Your task to perform on an android device: open app "DuckDuckGo Privacy Browser" (install if not already installed) Image 0: 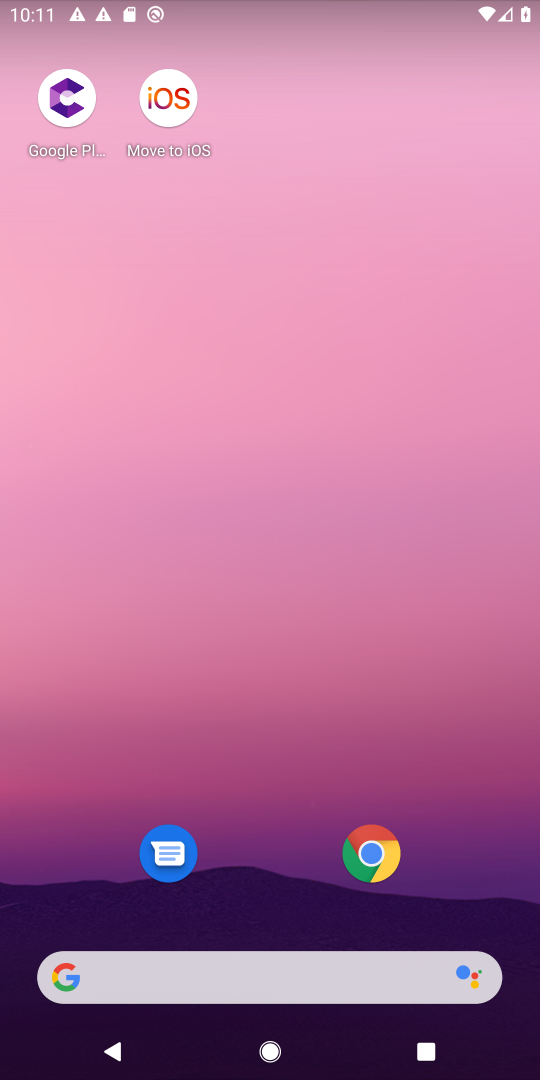
Step 0: drag from (314, 899) to (308, 288)
Your task to perform on an android device: open app "DuckDuckGo Privacy Browser" (install if not already installed) Image 1: 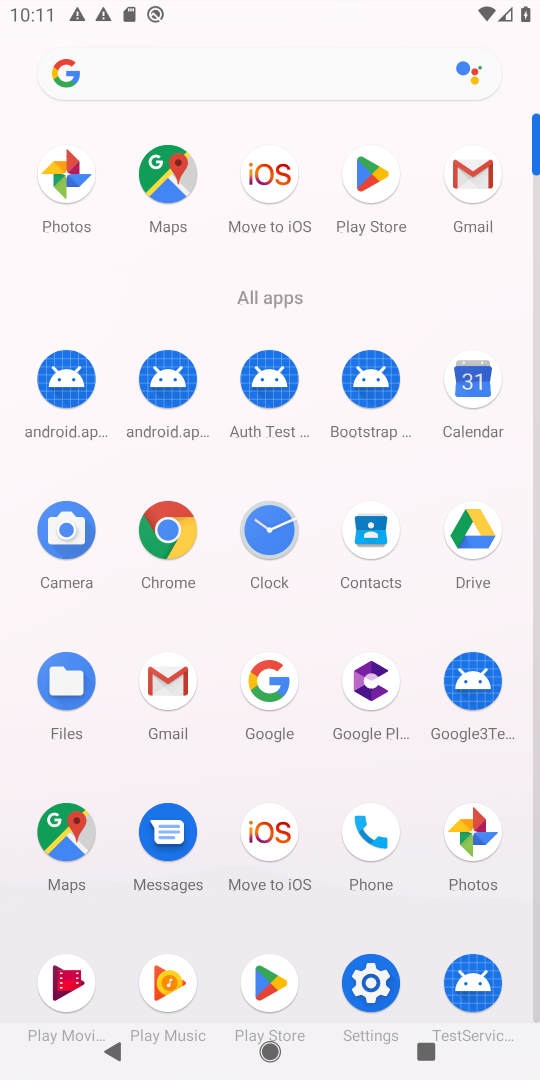
Step 1: click (374, 170)
Your task to perform on an android device: open app "DuckDuckGo Privacy Browser" (install if not already installed) Image 2: 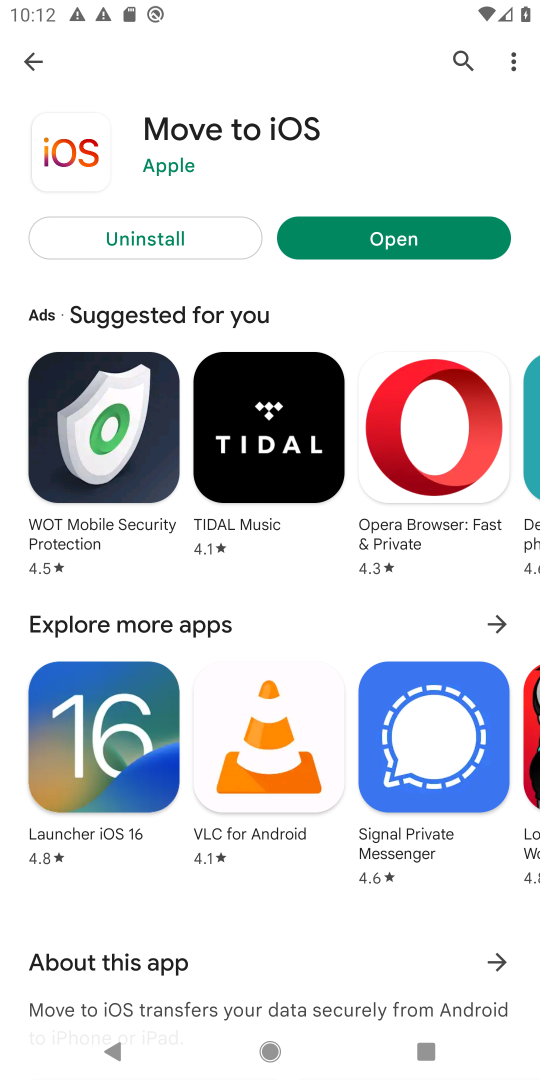
Step 2: click (460, 58)
Your task to perform on an android device: open app "DuckDuckGo Privacy Browser" (install if not already installed) Image 3: 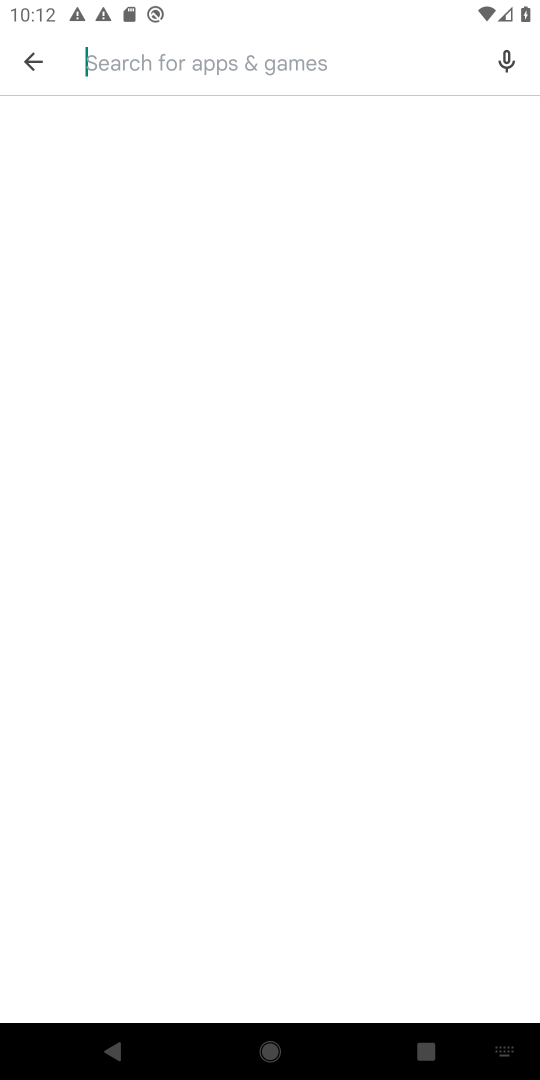
Step 3: type "DuckDuckGo Privacy Browser"
Your task to perform on an android device: open app "DuckDuckGo Privacy Browser" (install if not already installed) Image 4: 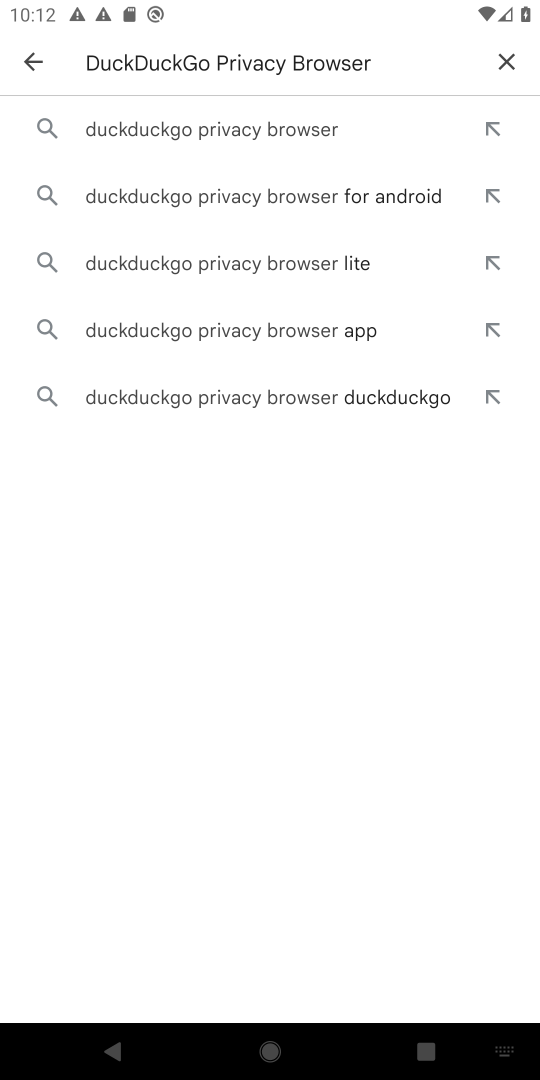
Step 4: click (251, 117)
Your task to perform on an android device: open app "DuckDuckGo Privacy Browser" (install if not already installed) Image 5: 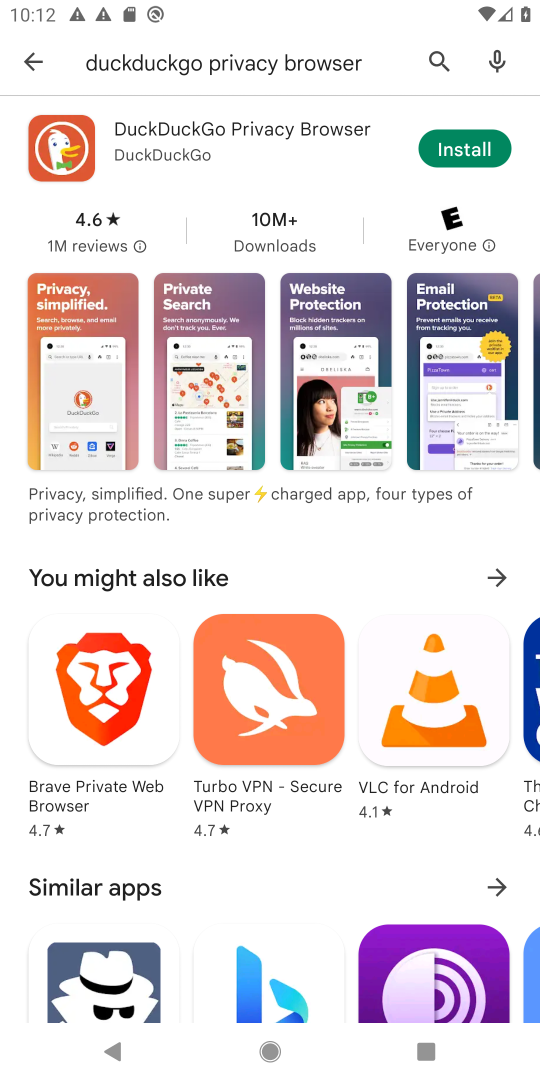
Step 5: click (441, 154)
Your task to perform on an android device: open app "DuckDuckGo Privacy Browser" (install if not already installed) Image 6: 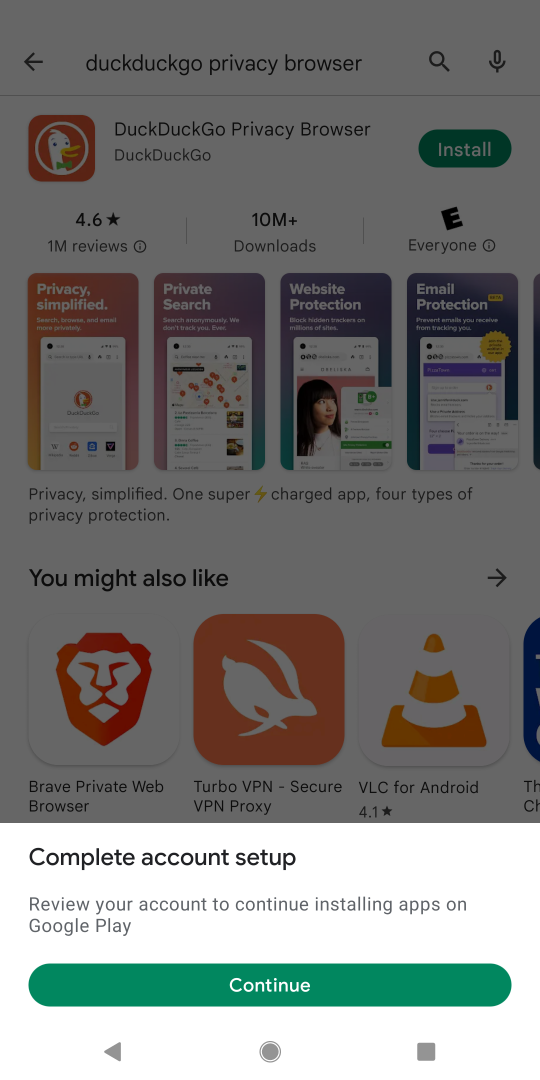
Step 6: click (259, 987)
Your task to perform on an android device: open app "DuckDuckGo Privacy Browser" (install if not already installed) Image 7: 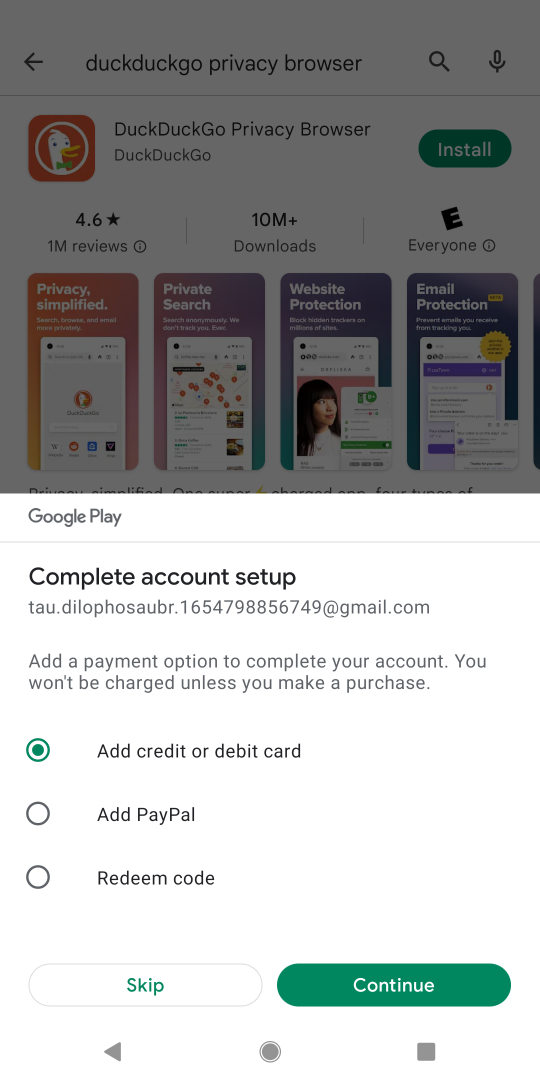
Step 7: click (141, 981)
Your task to perform on an android device: open app "DuckDuckGo Privacy Browser" (install if not already installed) Image 8: 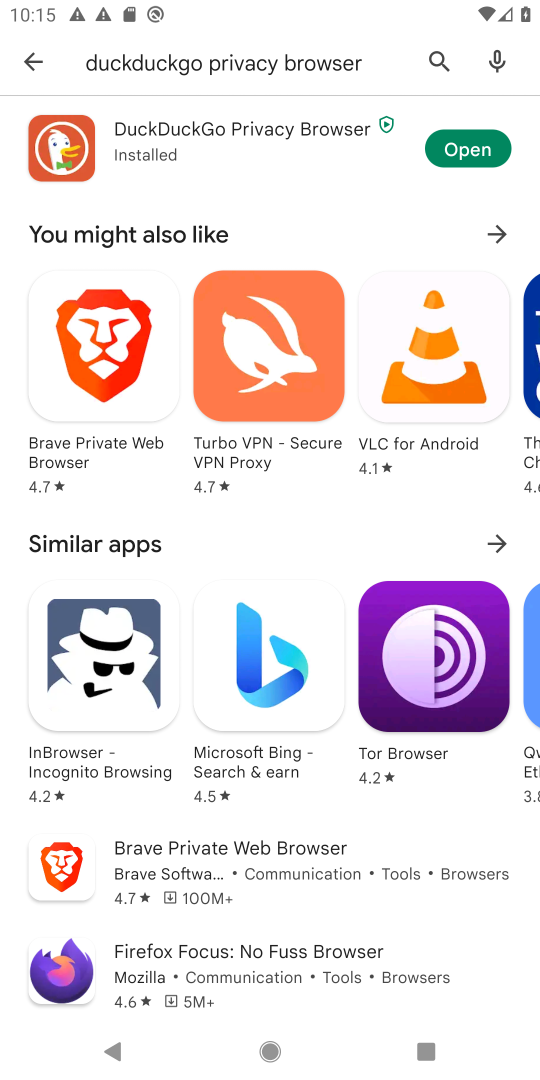
Step 8: task complete